Your task to perform on an android device: clear history in the chrome app Image 0: 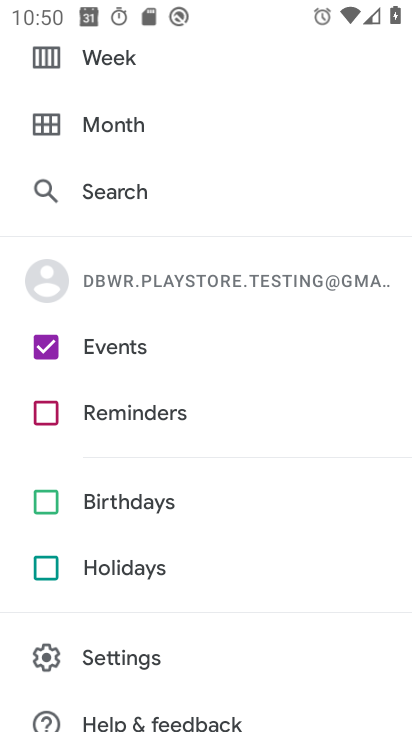
Step 0: press home button
Your task to perform on an android device: clear history in the chrome app Image 1: 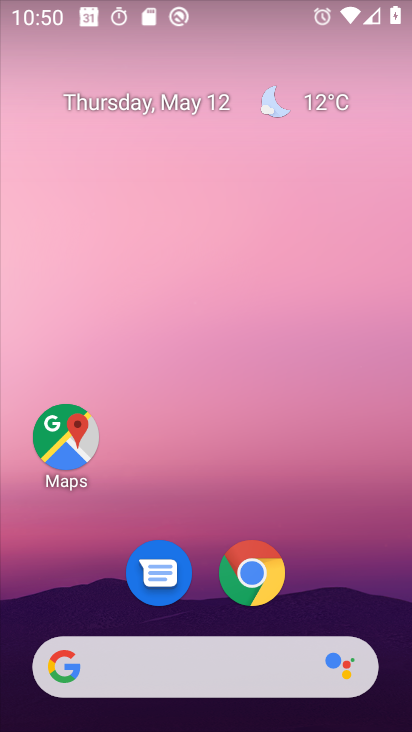
Step 1: click (249, 575)
Your task to perform on an android device: clear history in the chrome app Image 2: 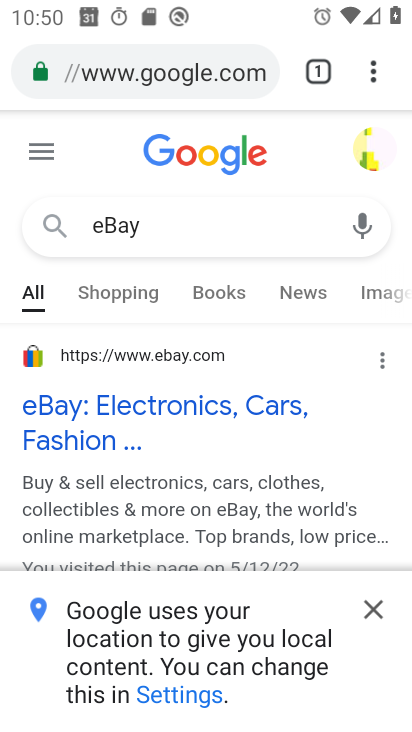
Step 2: click (373, 75)
Your task to perform on an android device: clear history in the chrome app Image 3: 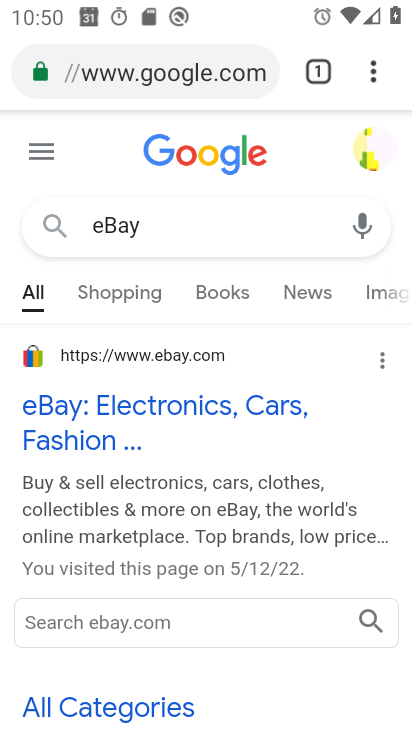
Step 3: click (372, 66)
Your task to perform on an android device: clear history in the chrome app Image 4: 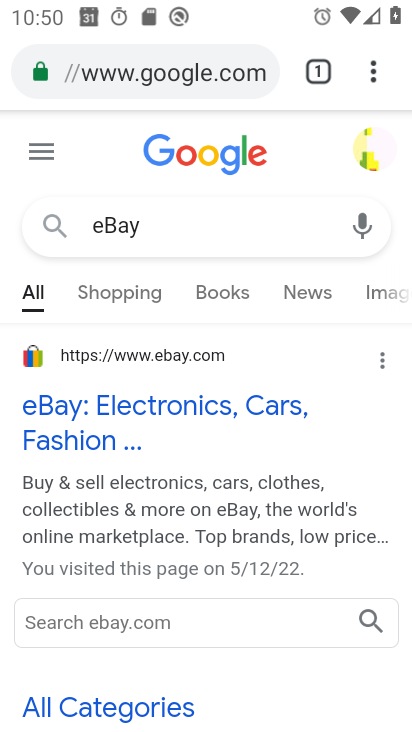
Step 4: click (372, 66)
Your task to perform on an android device: clear history in the chrome app Image 5: 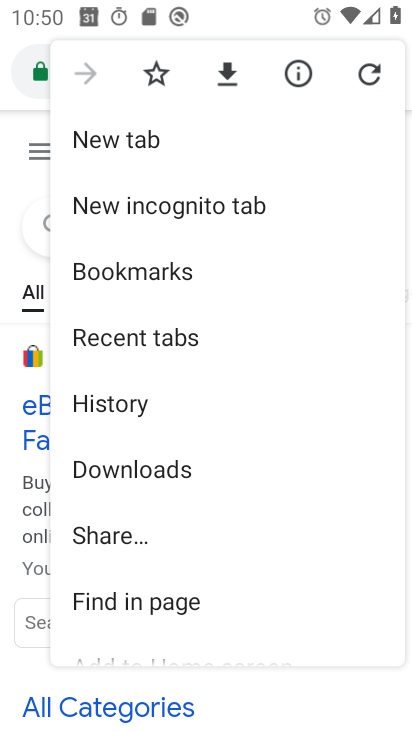
Step 5: drag from (228, 602) to (262, 364)
Your task to perform on an android device: clear history in the chrome app Image 6: 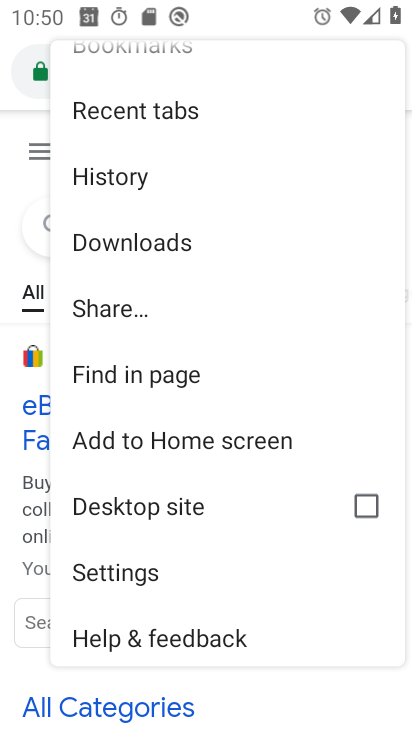
Step 6: drag from (285, 618) to (288, 352)
Your task to perform on an android device: clear history in the chrome app Image 7: 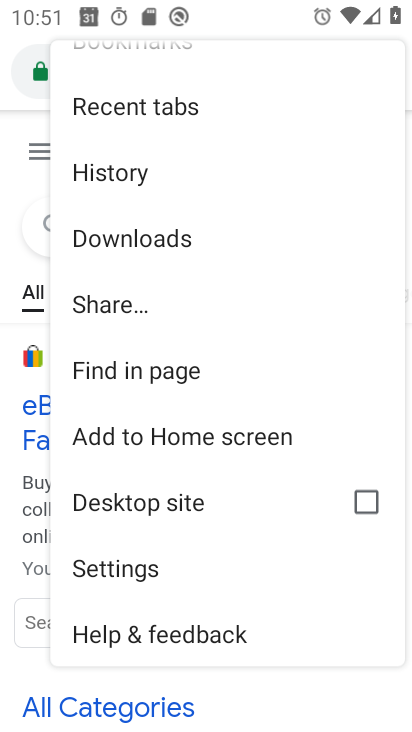
Step 7: click (113, 172)
Your task to perform on an android device: clear history in the chrome app Image 8: 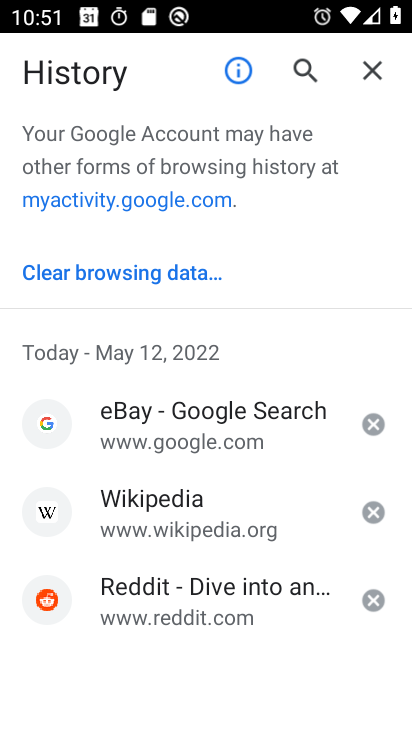
Step 8: click (81, 272)
Your task to perform on an android device: clear history in the chrome app Image 9: 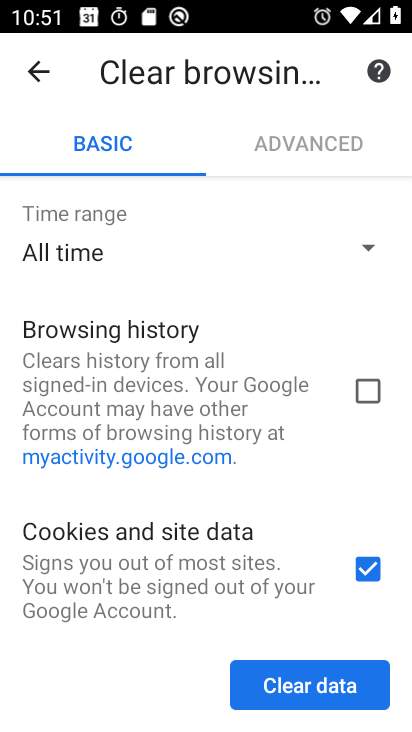
Step 9: click (369, 397)
Your task to perform on an android device: clear history in the chrome app Image 10: 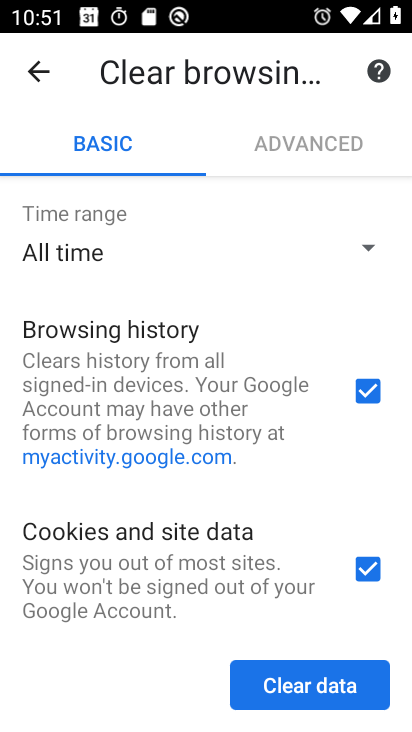
Step 10: click (316, 683)
Your task to perform on an android device: clear history in the chrome app Image 11: 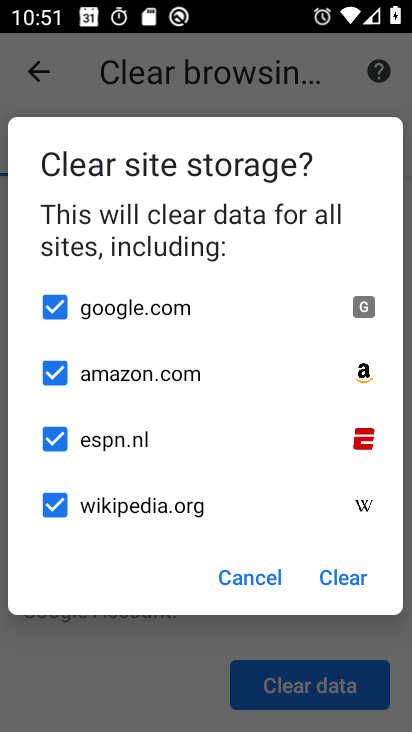
Step 11: click (344, 577)
Your task to perform on an android device: clear history in the chrome app Image 12: 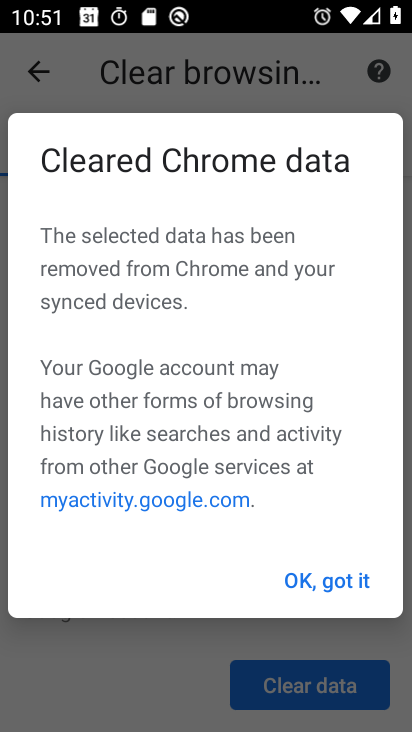
Step 12: click (340, 581)
Your task to perform on an android device: clear history in the chrome app Image 13: 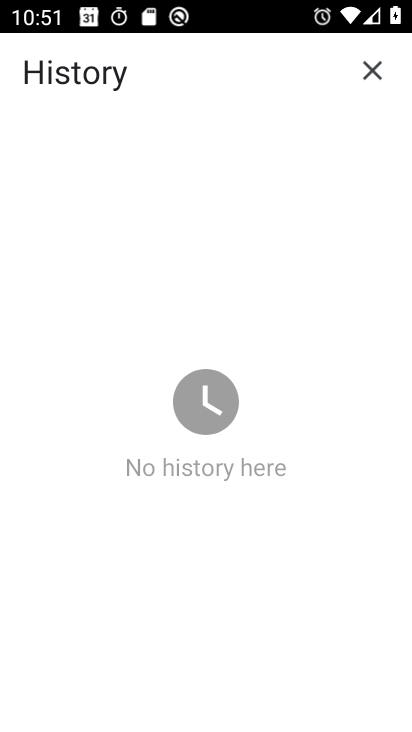
Step 13: task complete